Your task to perform on an android device: Go to location settings Image 0: 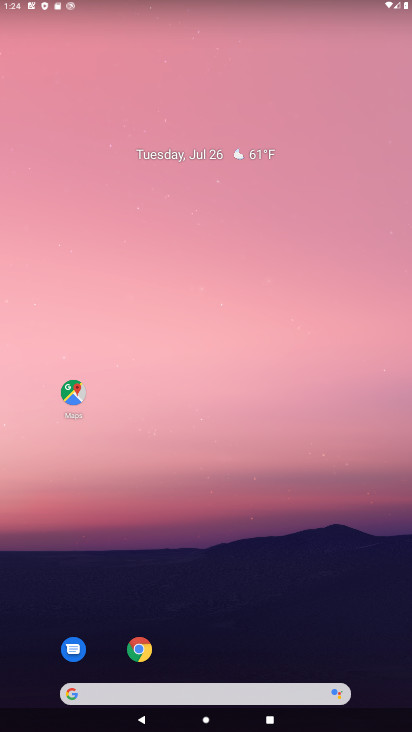
Step 0: click (266, 132)
Your task to perform on an android device: Go to location settings Image 1: 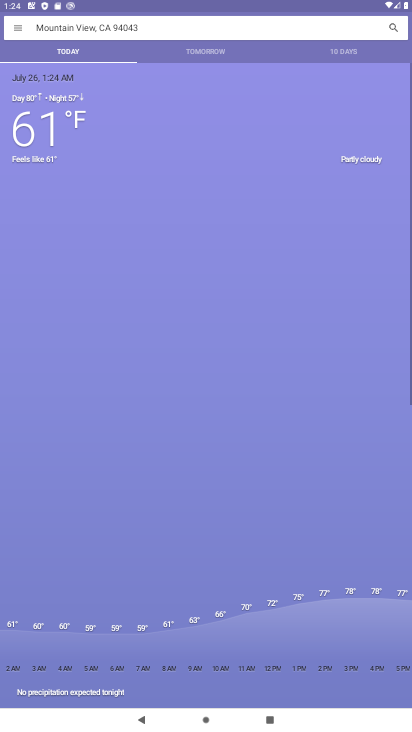
Step 1: press home button
Your task to perform on an android device: Go to location settings Image 2: 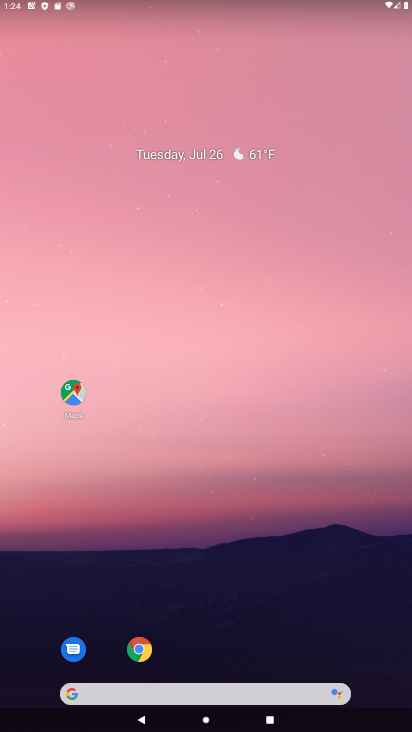
Step 2: drag from (222, 568) to (239, 248)
Your task to perform on an android device: Go to location settings Image 3: 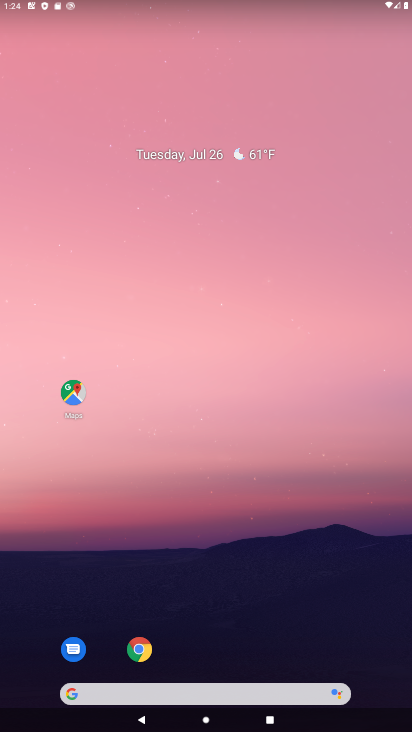
Step 3: drag from (219, 500) to (245, 221)
Your task to perform on an android device: Go to location settings Image 4: 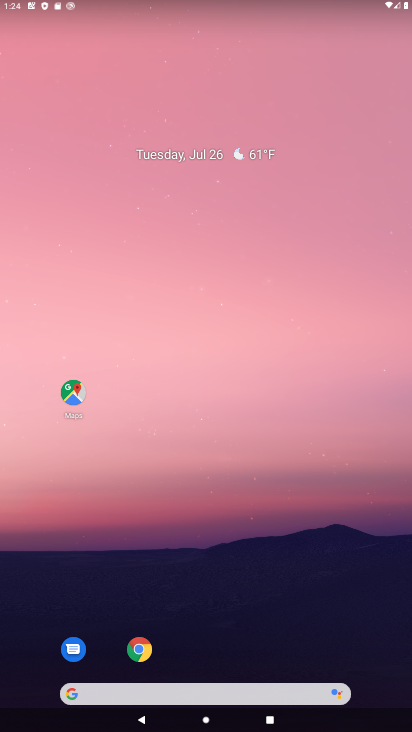
Step 4: drag from (194, 621) to (209, 265)
Your task to perform on an android device: Go to location settings Image 5: 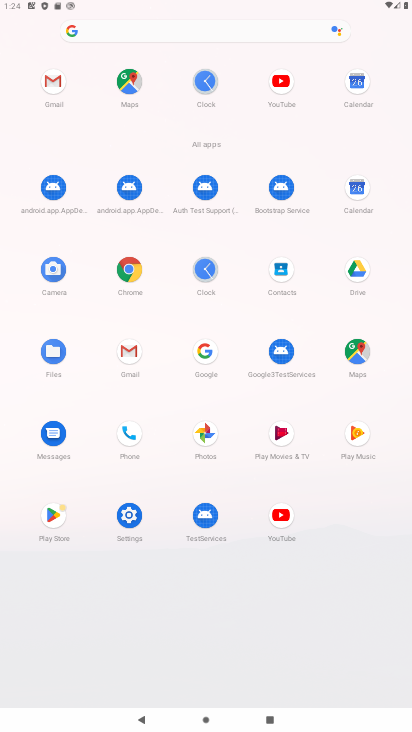
Step 5: click (128, 531)
Your task to perform on an android device: Go to location settings Image 6: 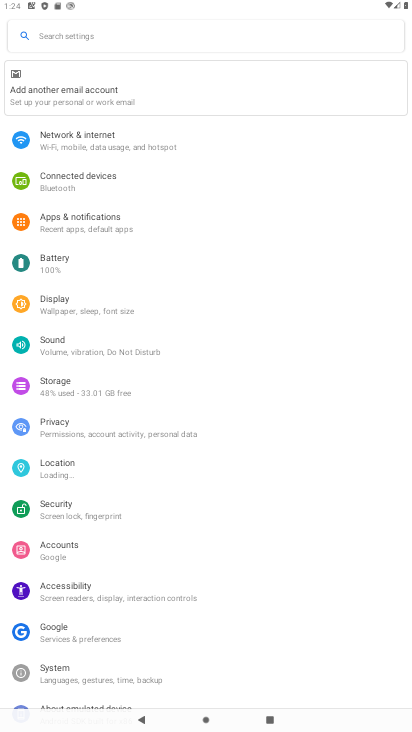
Step 6: click (65, 465)
Your task to perform on an android device: Go to location settings Image 7: 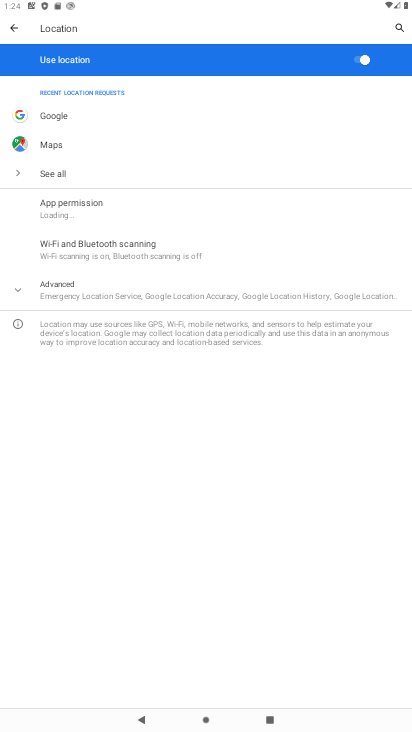
Step 7: task complete